Your task to perform on an android device: change text size in settings app Image 0: 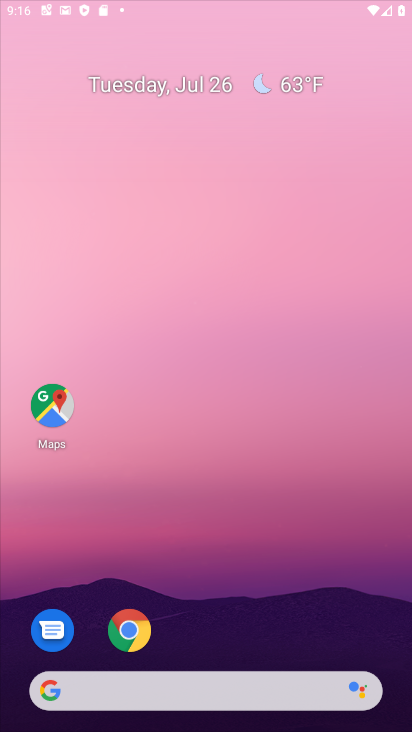
Step 0: press home button
Your task to perform on an android device: change text size in settings app Image 1: 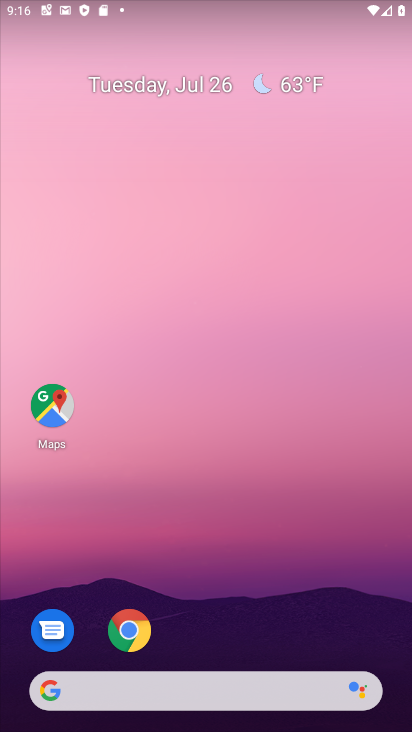
Step 1: drag from (221, 647) to (257, 11)
Your task to perform on an android device: change text size in settings app Image 2: 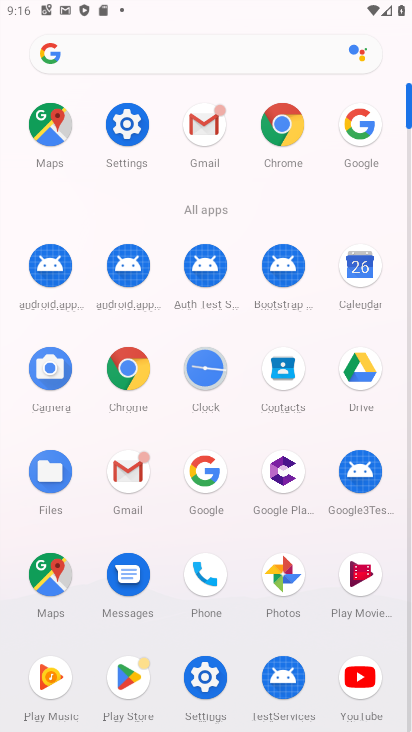
Step 2: click (125, 123)
Your task to perform on an android device: change text size in settings app Image 3: 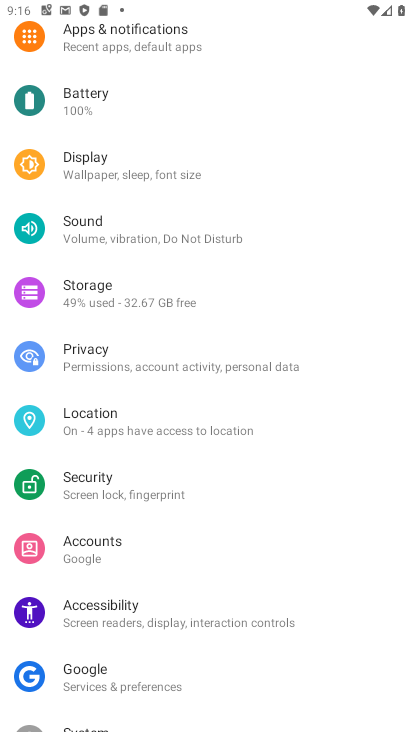
Step 3: click (113, 155)
Your task to perform on an android device: change text size in settings app Image 4: 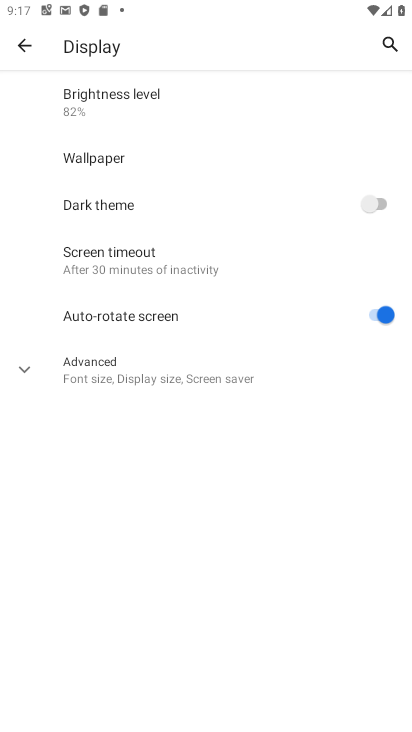
Step 4: click (27, 358)
Your task to perform on an android device: change text size in settings app Image 5: 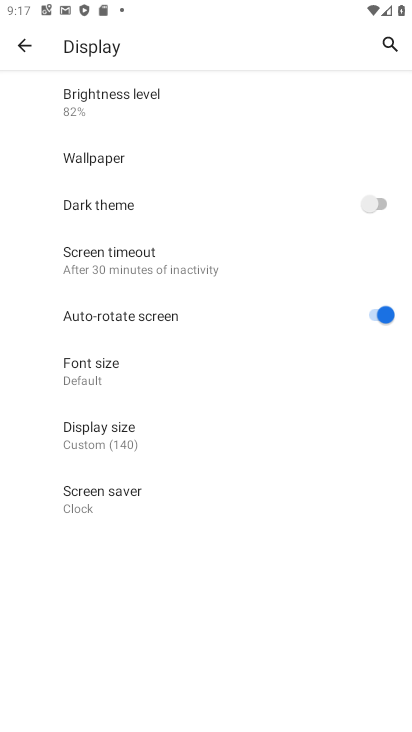
Step 5: click (110, 368)
Your task to perform on an android device: change text size in settings app Image 6: 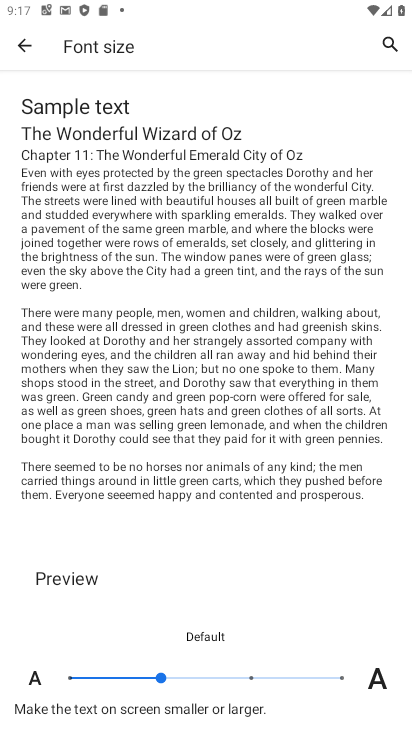
Step 6: click (336, 674)
Your task to perform on an android device: change text size in settings app Image 7: 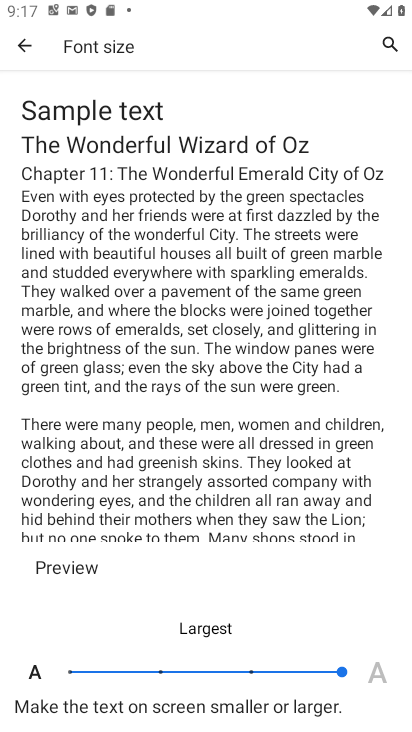
Step 7: task complete